Your task to perform on an android device: Go to network settings Image 0: 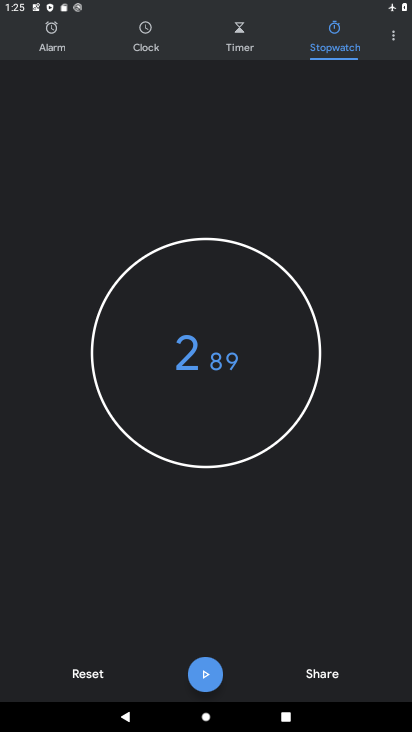
Step 0: press home button
Your task to perform on an android device: Go to network settings Image 1: 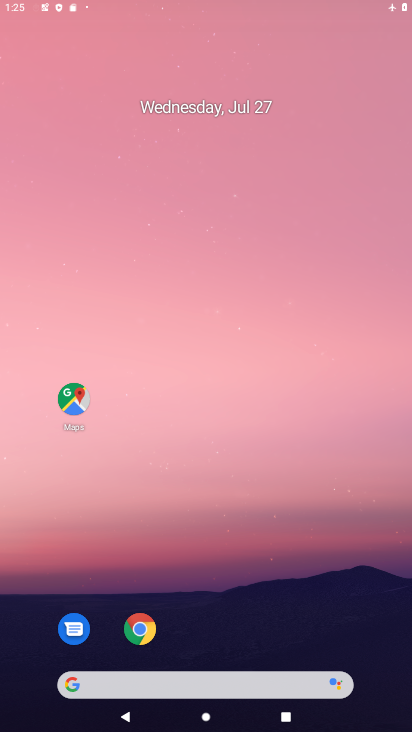
Step 1: drag from (348, 599) to (146, 50)
Your task to perform on an android device: Go to network settings Image 2: 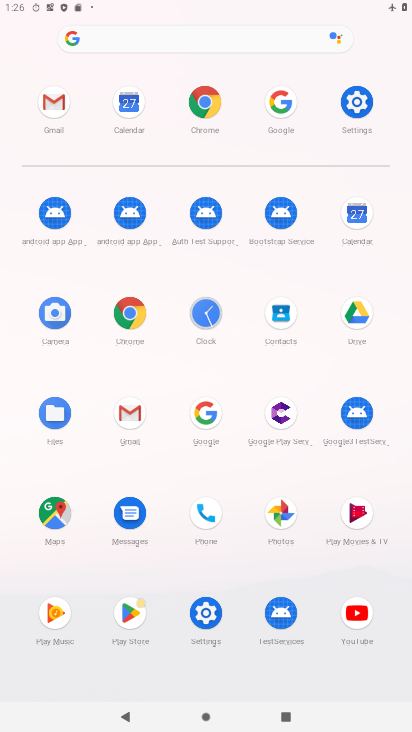
Step 2: click (204, 610)
Your task to perform on an android device: Go to network settings Image 3: 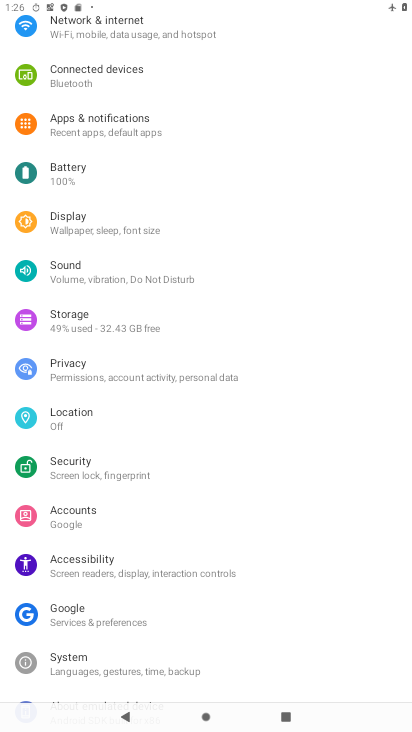
Step 3: click (80, 27)
Your task to perform on an android device: Go to network settings Image 4: 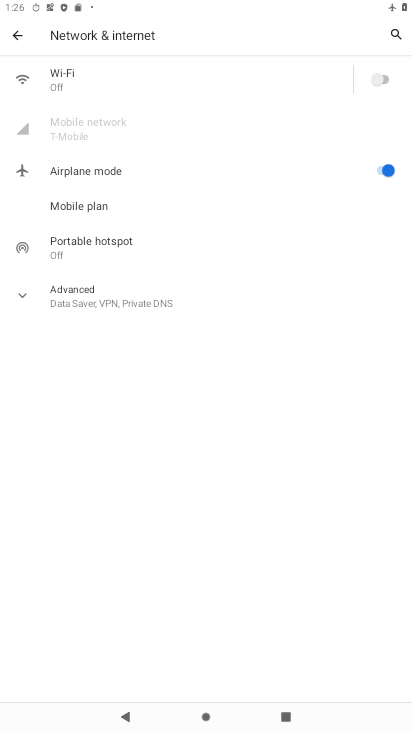
Step 4: task complete